Your task to perform on an android device: open wifi settings Image 0: 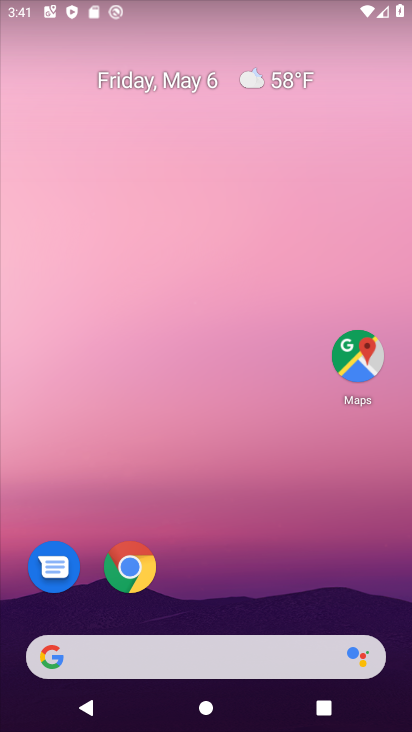
Step 0: drag from (162, 650) to (127, 33)
Your task to perform on an android device: open wifi settings Image 1: 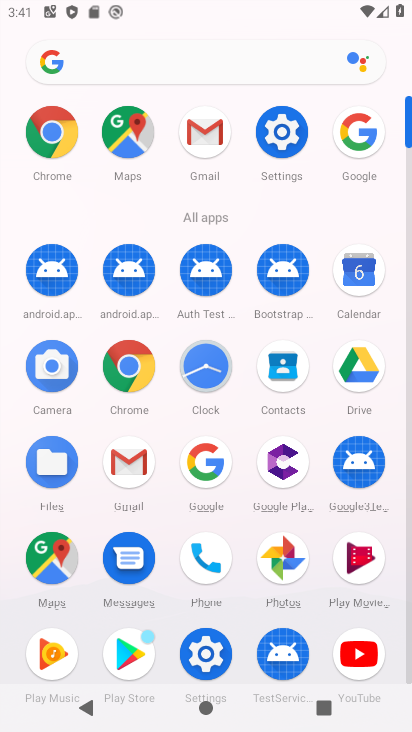
Step 1: click (292, 155)
Your task to perform on an android device: open wifi settings Image 2: 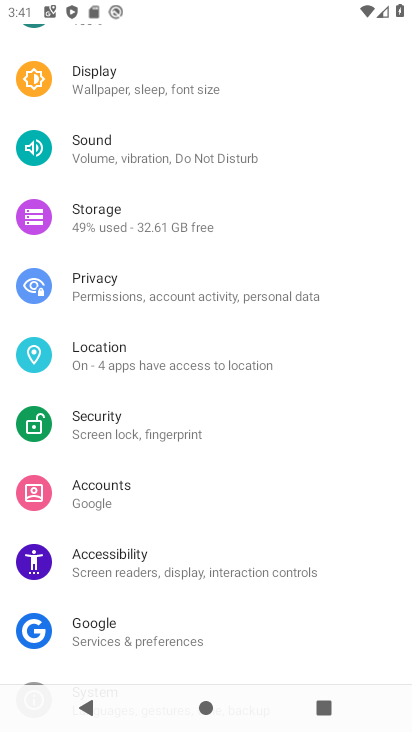
Step 2: drag from (80, 105) to (40, 382)
Your task to perform on an android device: open wifi settings Image 3: 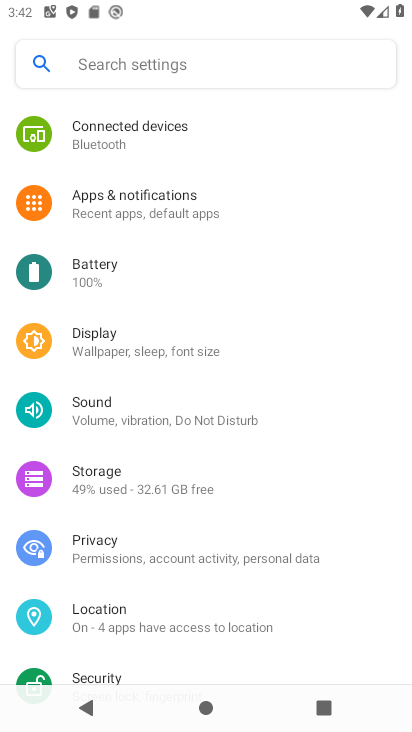
Step 3: drag from (156, 158) to (220, 488)
Your task to perform on an android device: open wifi settings Image 4: 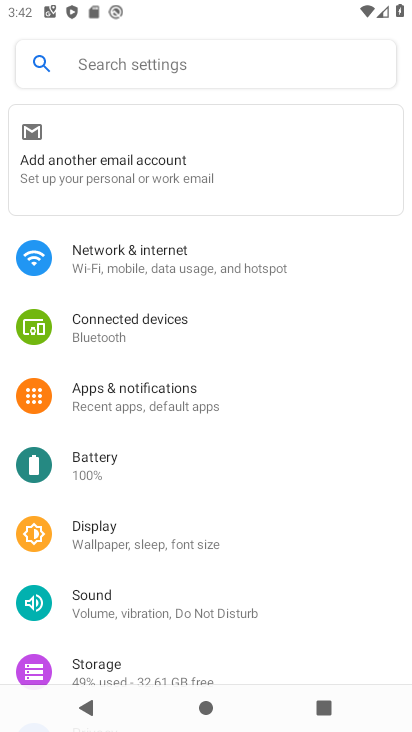
Step 4: click (188, 259)
Your task to perform on an android device: open wifi settings Image 5: 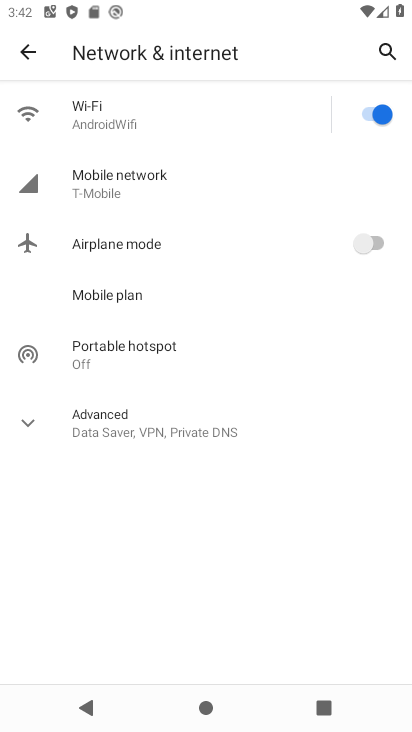
Step 5: click (161, 110)
Your task to perform on an android device: open wifi settings Image 6: 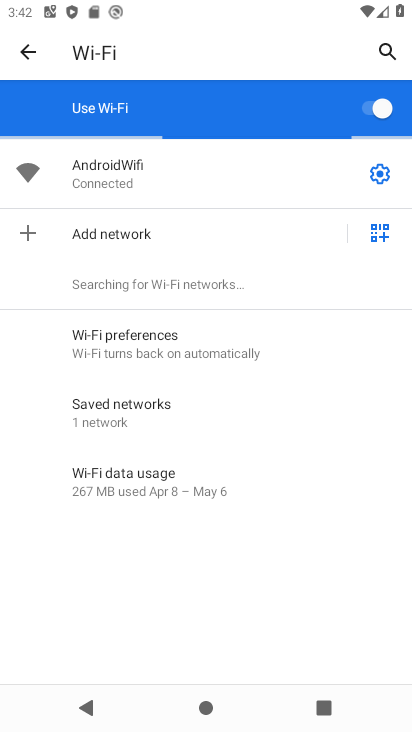
Step 6: task complete